Your task to perform on an android device: delete browsing data in the chrome app Image 0: 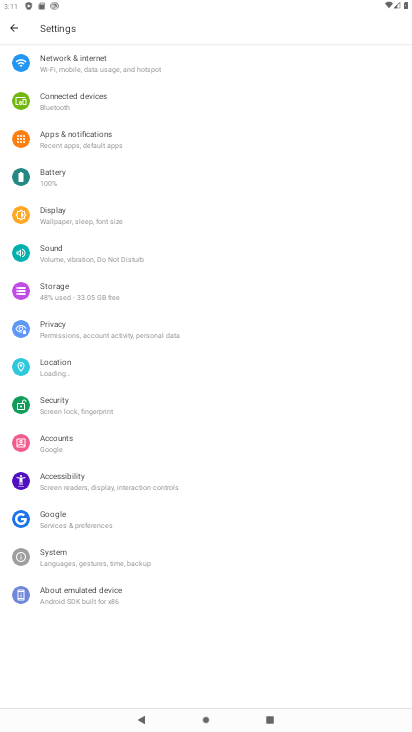
Step 0: drag from (217, 661) to (198, 330)
Your task to perform on an android device: delete browsing data in the chrome app Image 1: 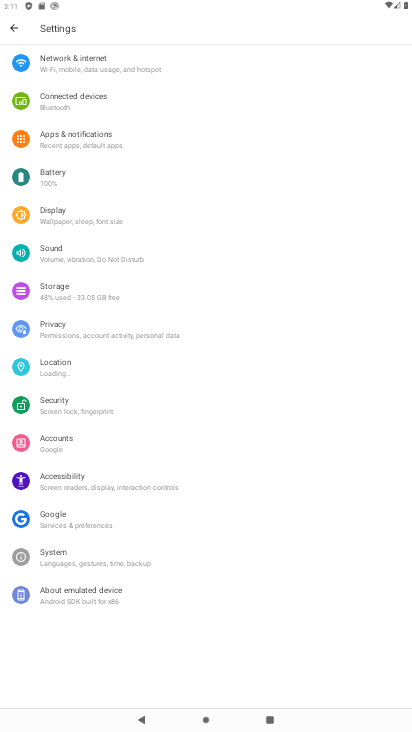
Step 1: press home button
Your task to perform on an android device: delete browsing data in the chrome app Image 2: 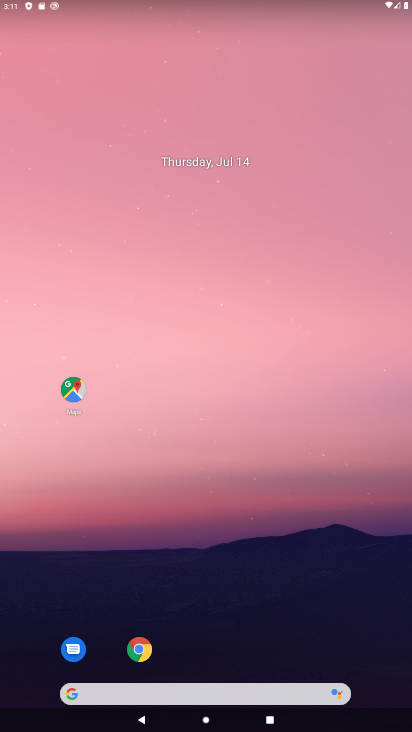
Step 2: drag from (198, 661) to (193, 218)
Your task to perform on an android device: delete browsing data in the chrome app Image 3: 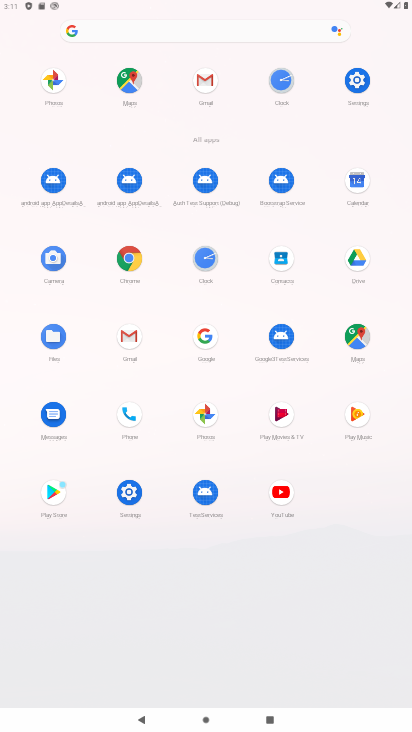
Step 3: click (124, 268)
Your task to perform on an android device: delete browsing data in the chrome app Image 4: 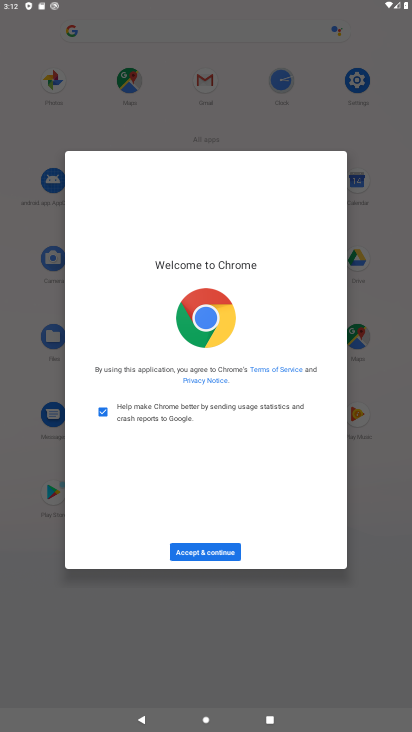
Step 4: click (231, 544)
Your task to perform on an android device: delete browsing data in the chrome app Image 5: 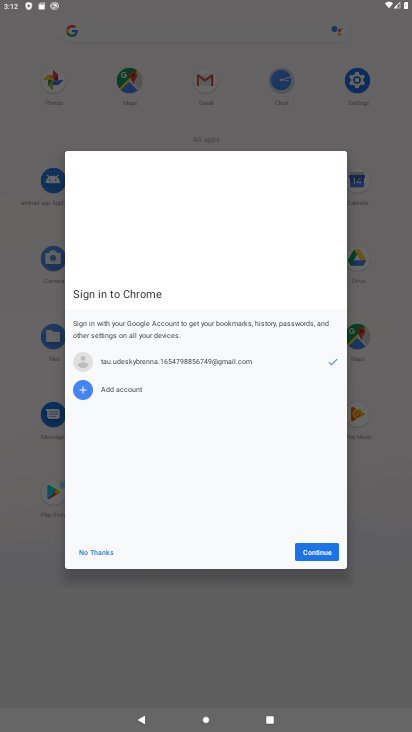
Step 5: click (323, 549)
Your task to perform on an android device: delete browsing data in the chrome app Image 6: 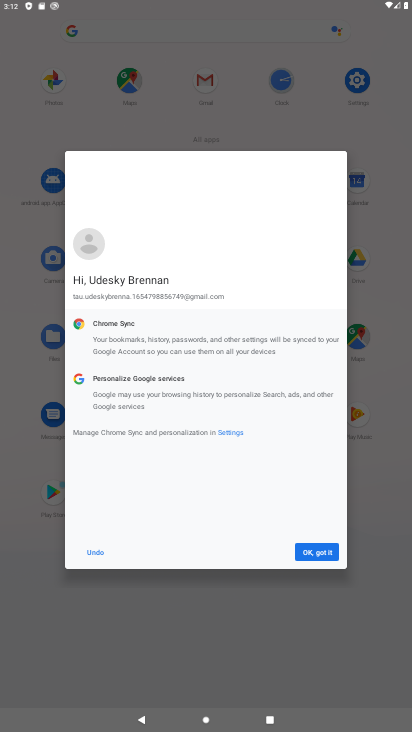
Step 6: click (309, 545)
Your task to perform on an android device: delete browsing data in the chrome app Image 7: 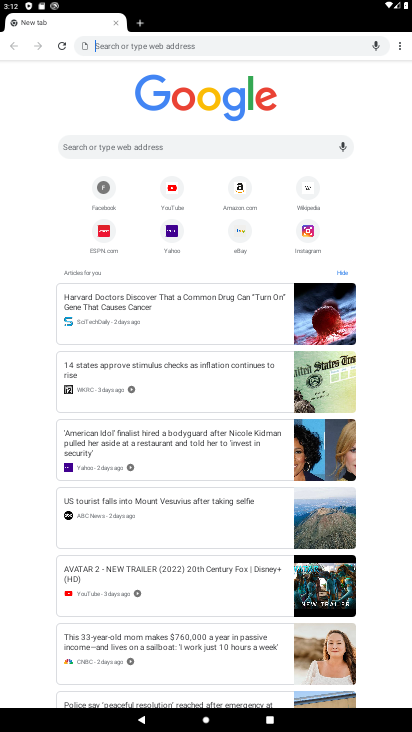
Step 7: click (402, 39)
Your task to perform on an android device: delete browsing data in the chrome app Image 8: 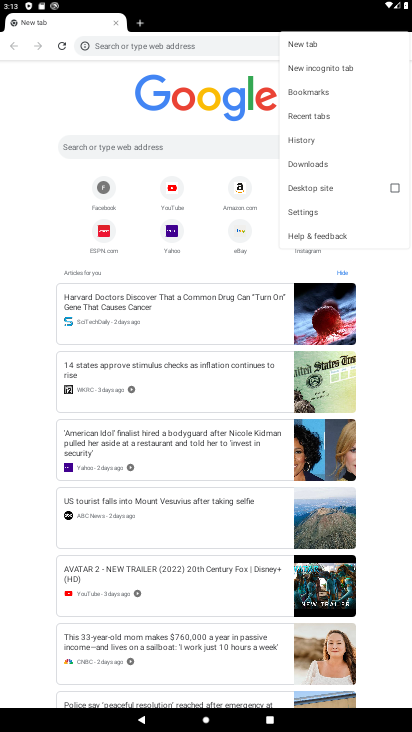
Step 8: click (302, 135)
Your task to perform on an android device: delete browsing data in the chrome app Image 9: 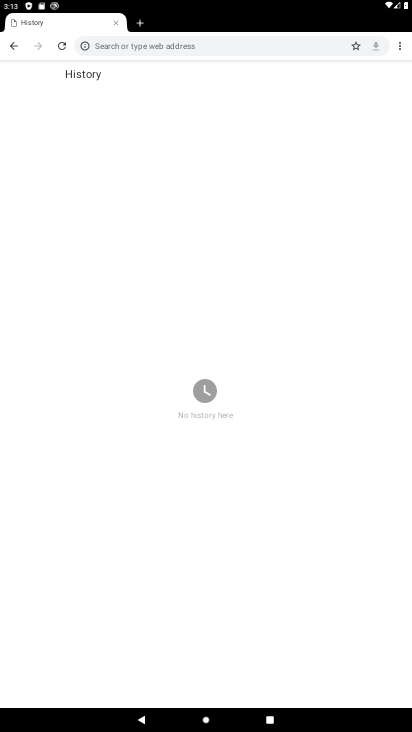
Step 9: task complete